Your task to perform on an android device: clear history in the chrome app Image 0: 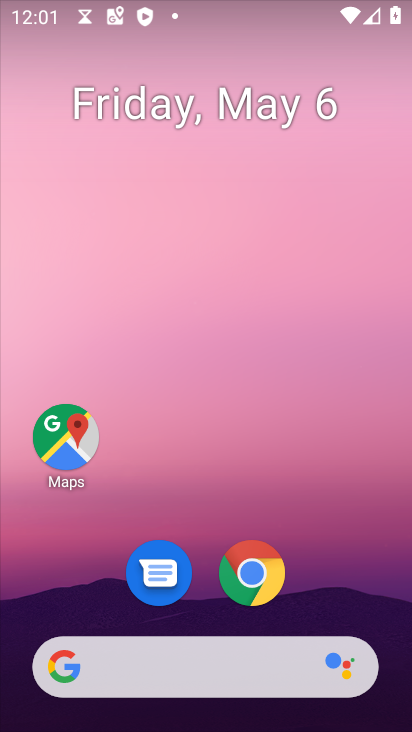
Step 0: drag from (343, 596) to (323, 252)
Your task to perform on an android device: clear history in the chrome app Image 1: 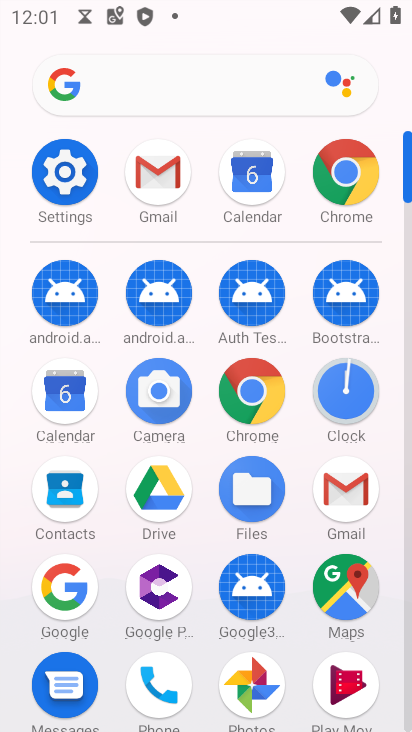
Step 1: click (345, 152)
Your task to perform on an android device: clear history in the chrome app Image 2: 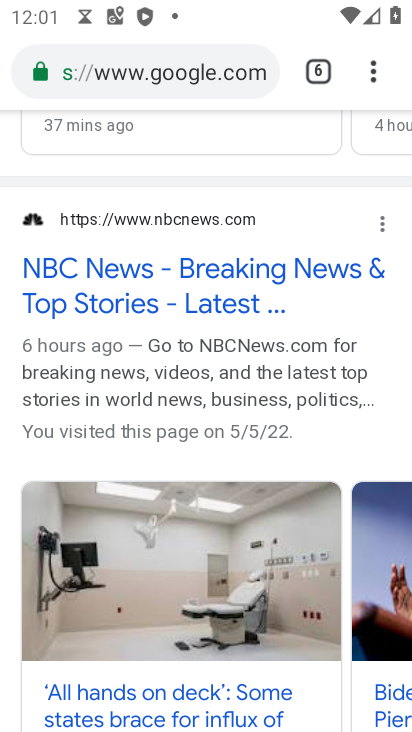
Step 2: click (364, 73)
Your task to perform on an android device: clear history in the chrome app Image 3: 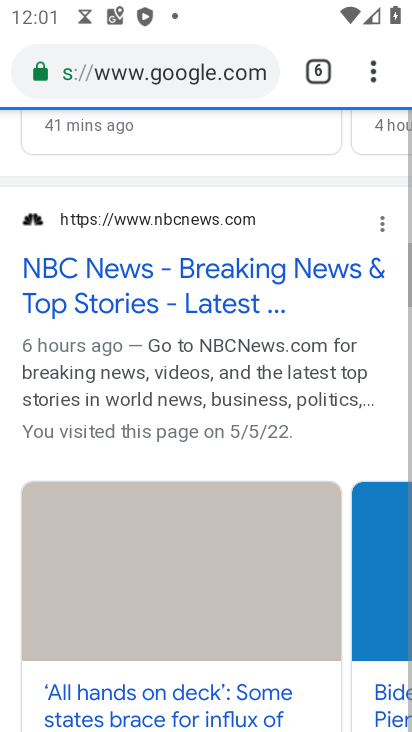
Step 3: click (362, 76)
Your task to perform on an android device: clear history in the chrome app Image 4: 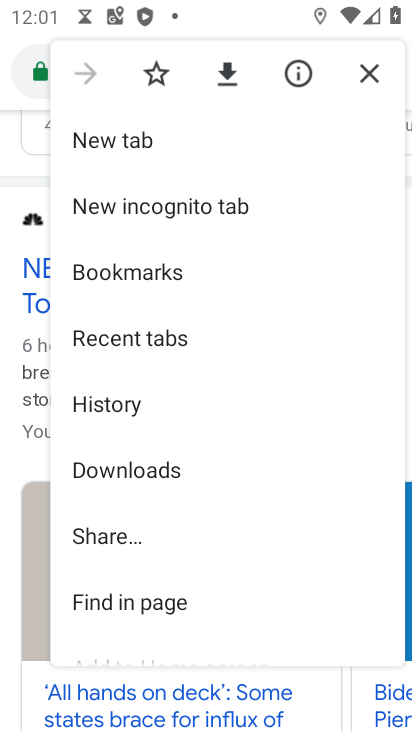
Step 4: click (150, 402)
Your task to perform on an android device: clear history in the chrome app Image 5: 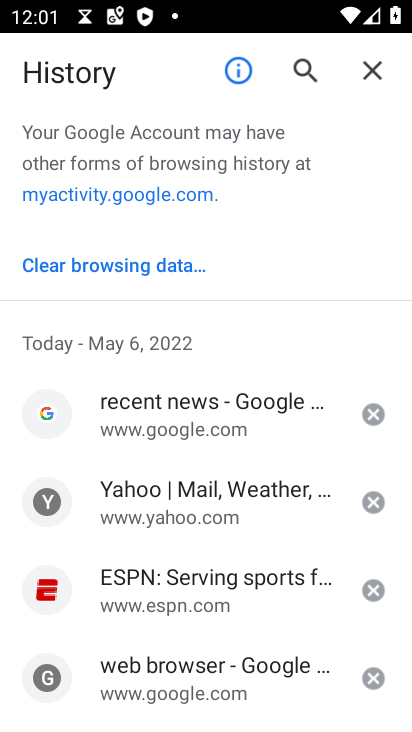
Step 5: click (141, 263)
Your task to perform on an android device: clear history in the chrome app Image 6: 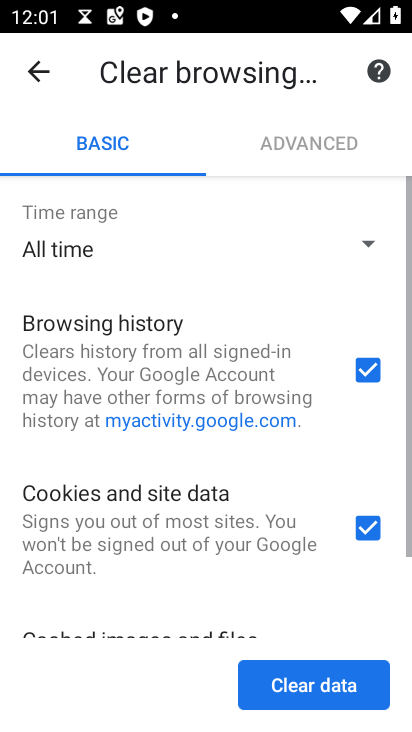
Step 6: click (312, 684)
Your task to perform on an android device: clear history in the chrome app Image 7: 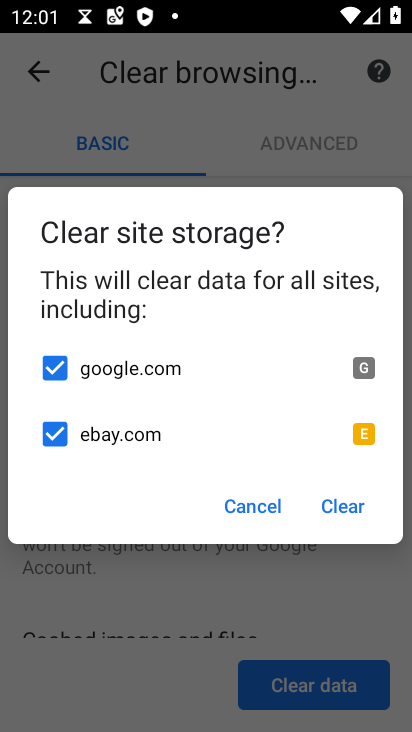
Step 7: click (335, 508)
Your task to perform on an android device: clear history in the chrome app Image 8: 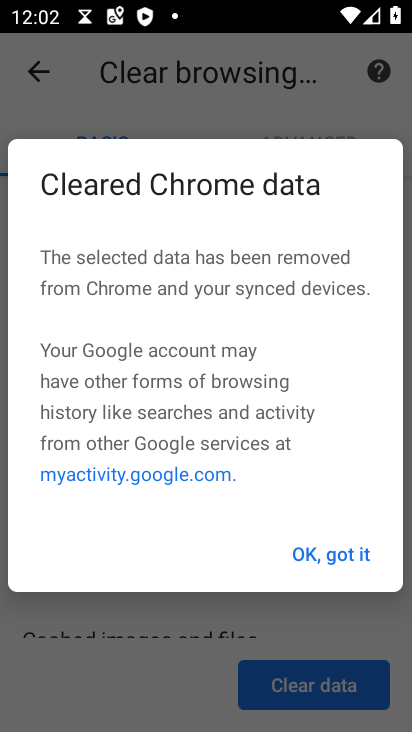
Step 8: click (352, 541)
Your task to perform on an android device: clear history in the chrome app Image 9: 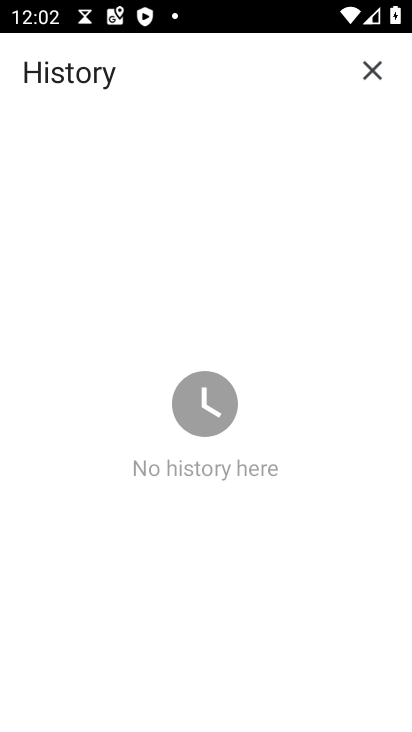
Step 9: task complete